Your task to perform on an android device: View the shopping cart on amazon. Add "razer blade" to the cart on amazon, then select checkout. Image 0: 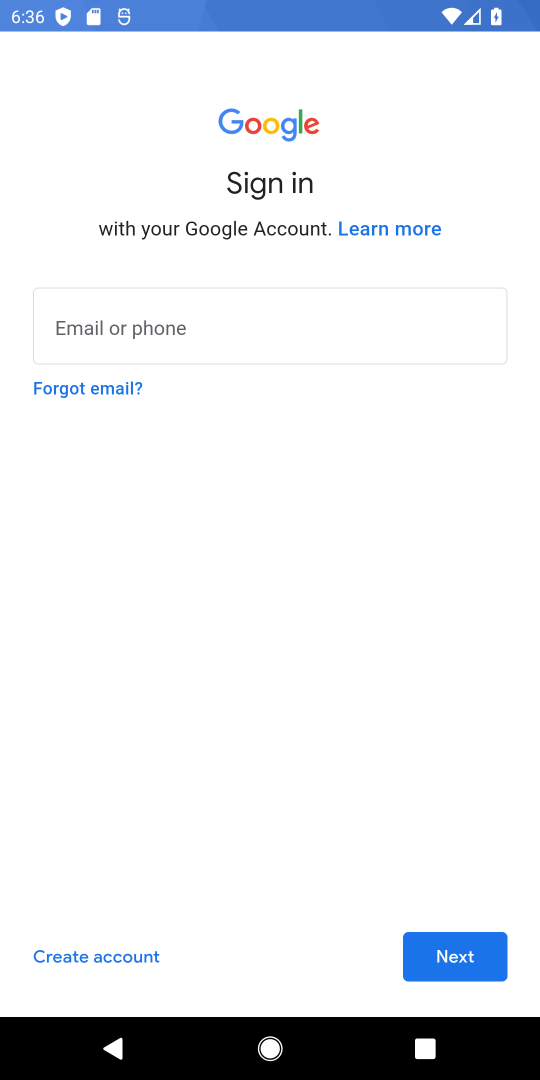
Step 0: press home button
Your task to perform on an android device: View the shopping cart on amazon. Add "razer blade" to the cart on amazon, then select checkout. Image 1: 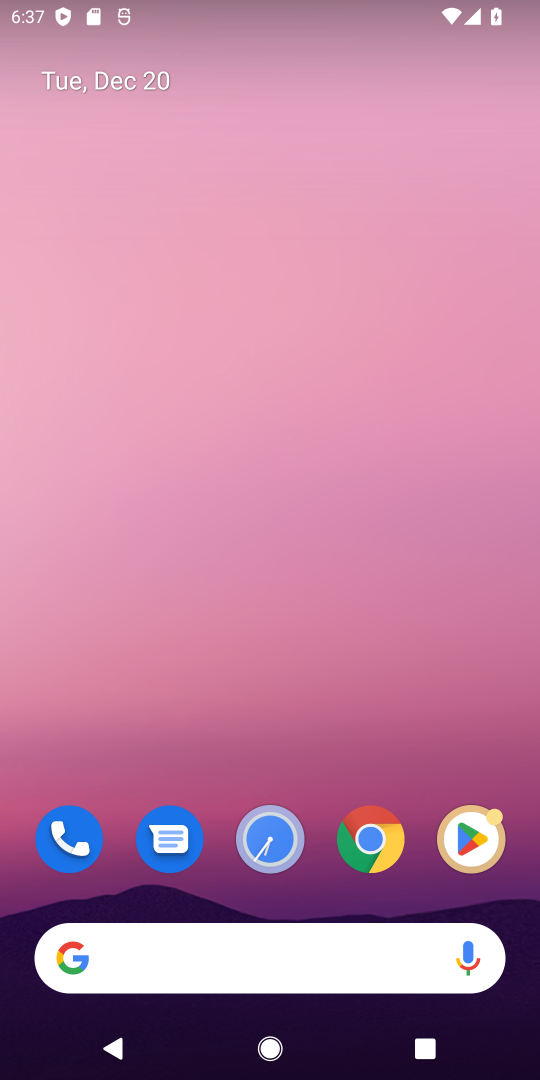
Step 1: click (294, 947)
Your task to perform on an android device: View the shopping cart on amazon. Add "razer blade" to the cart on amazon, then select checkout. Image 2: 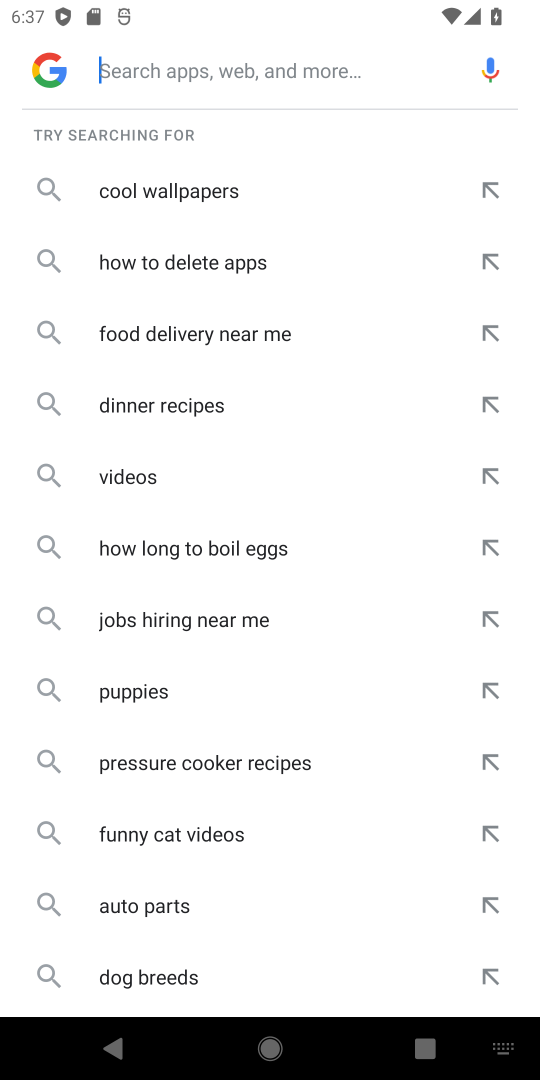
Step 2: type "amazon"
Your task to perform on an android device: View the shopping cart on amazon. Add "razer blade" to the cart on amazon, then select checkout. Image 3: 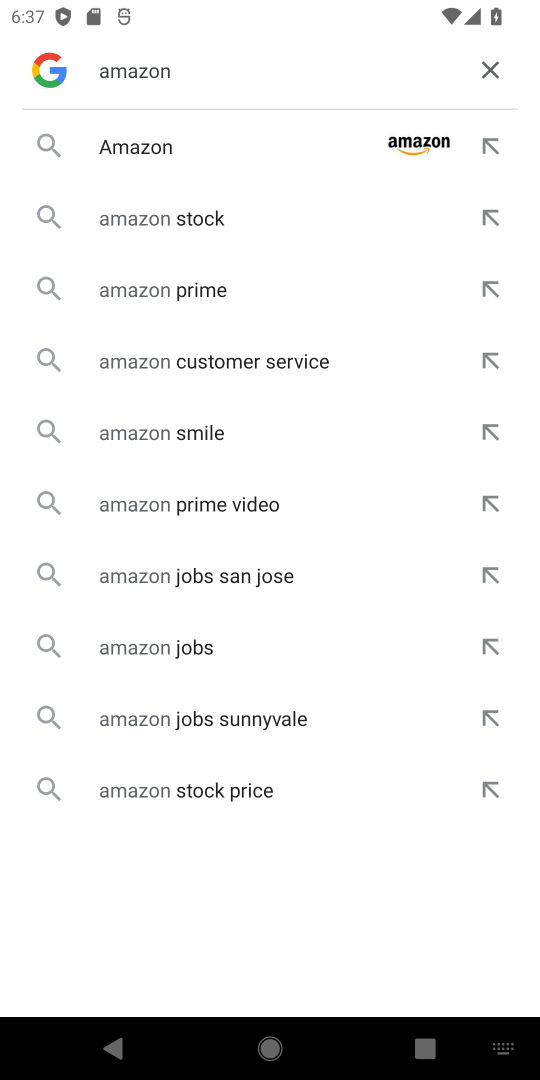
Step 3: click (270, 157)
Your task to perform on an android device: View the shopping cart on amazon. Add "razer blade" to the cart on amazon, then select checkout. Image 4: 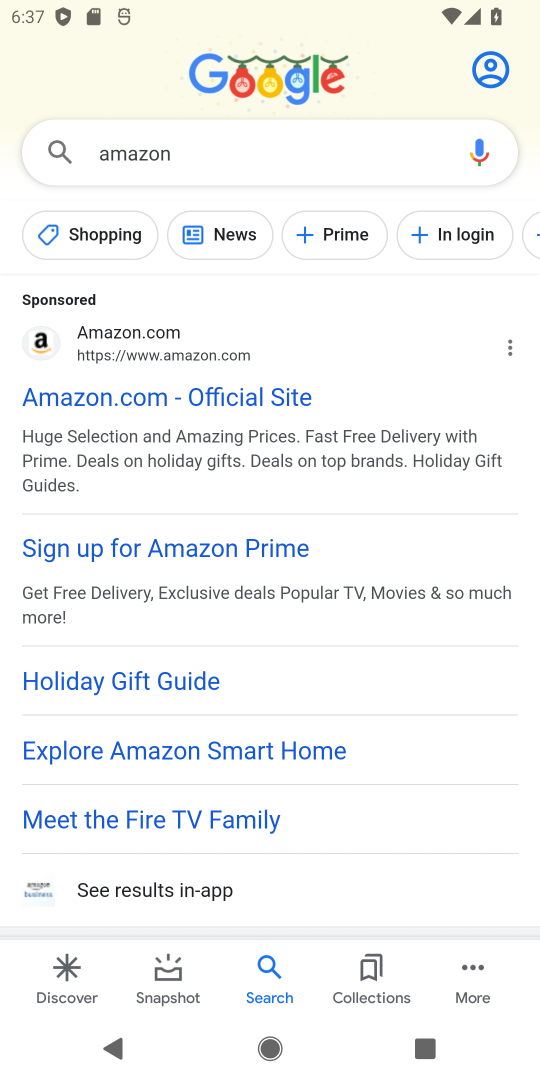
Step 4: click (157, 402)
Your task to perform on an android device: View the shopping cart on amazon. Add "razer blade" to the cart on amazon, then select checkout. Image 5: 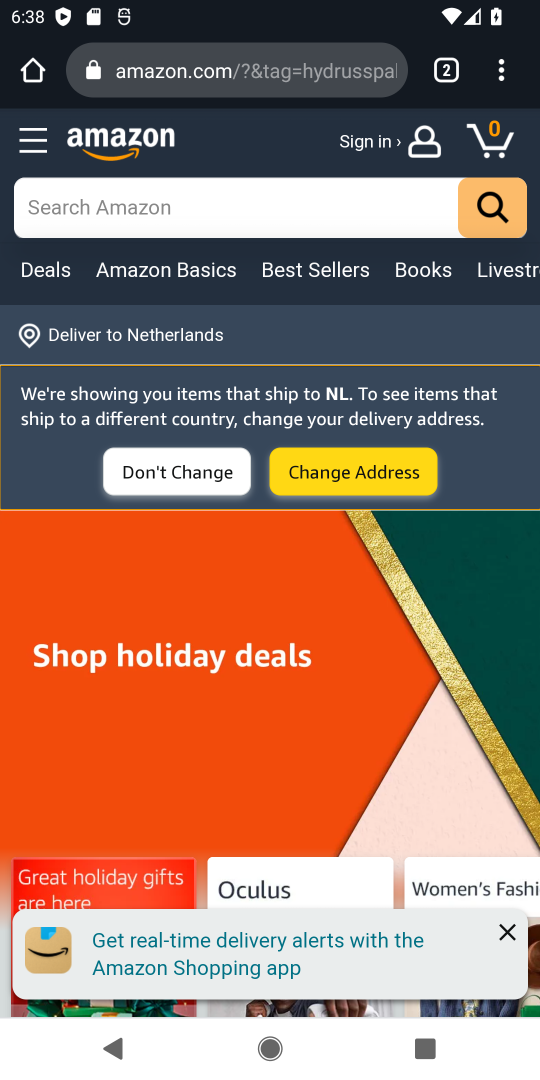
Step 5: click (500, 138)
Your task to perform on an android device: View the shopping cart on amazon. Add "razer blade" to the cart on amazon, then select checkout. Image 6: 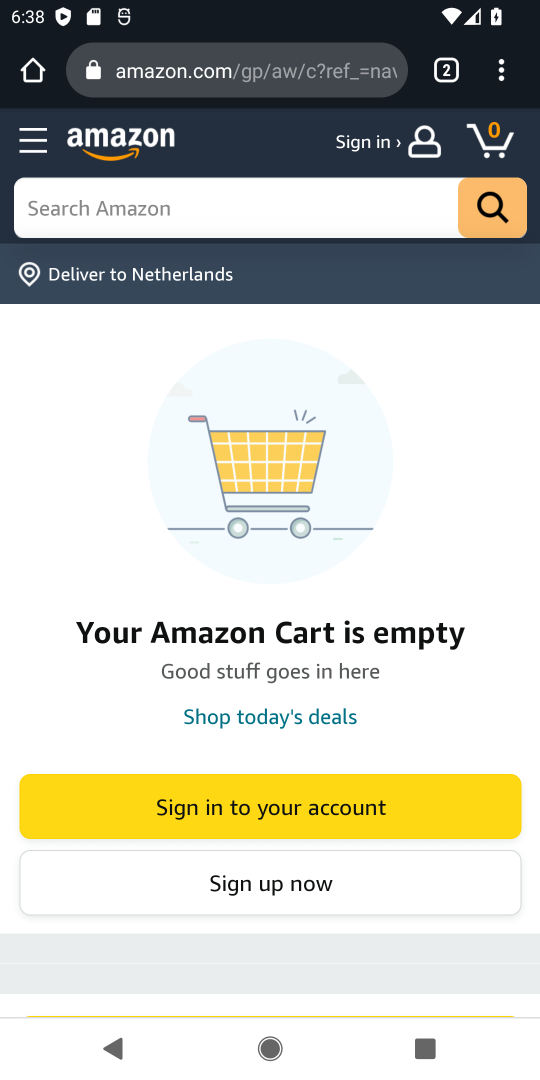
Step 6: click (281, 218)
Your task to perform on an android device: View the shopping cart on amazon. Add "razer blade" to the cart on amazon, then select checkout. Image 7: 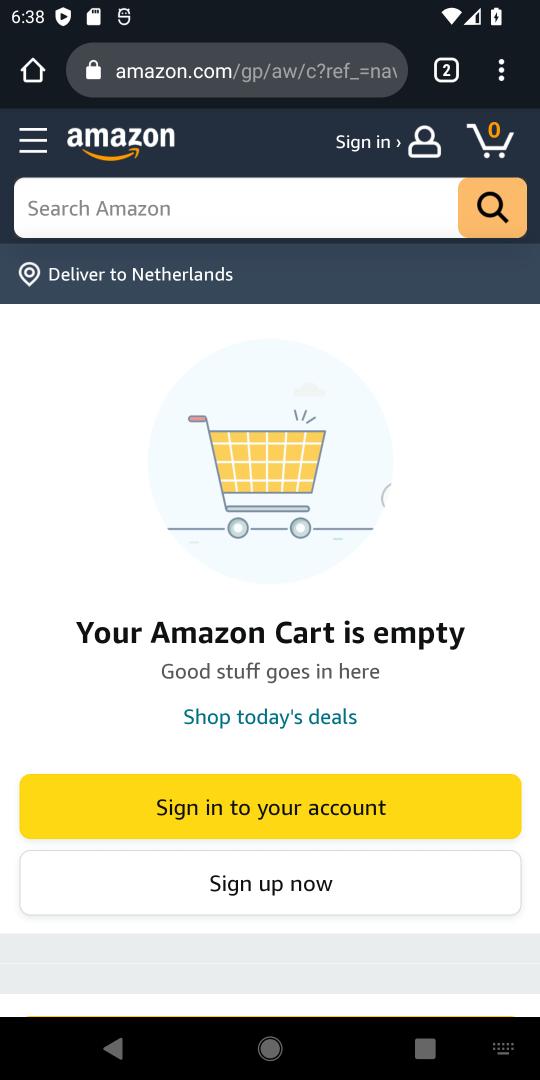
Step 7: click (192, 205)
Your task to perform on an android device: View the shopping cart on amazon. Add "razer blade" to the cart on amazon, then select checkout. Image 8: 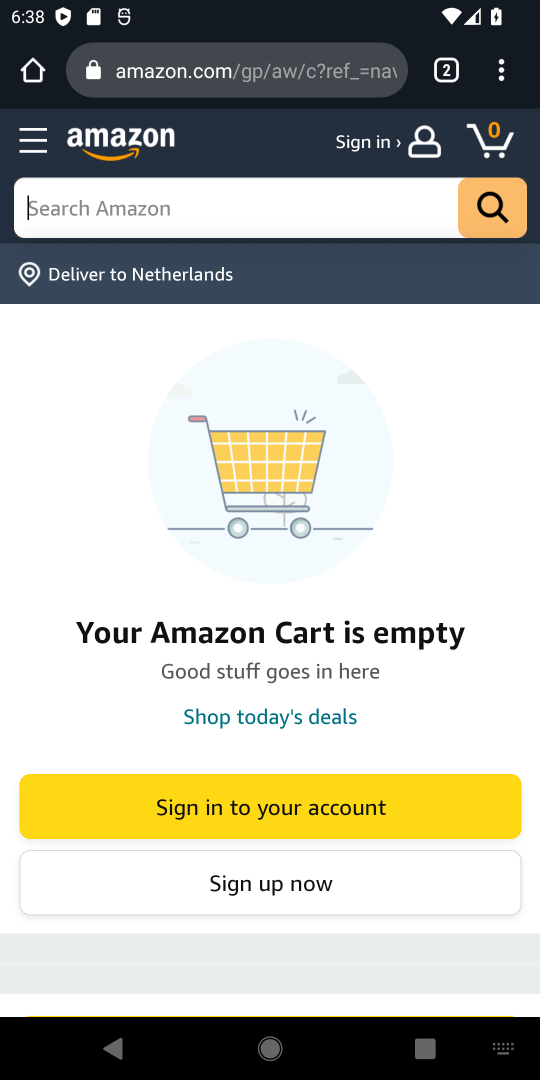
Step 8: type "razer blade"
Your task to perform on an android device: View the shopping cart on amazon. Add "razer blade" to the cart on amazon, then select checkout. Image 9: 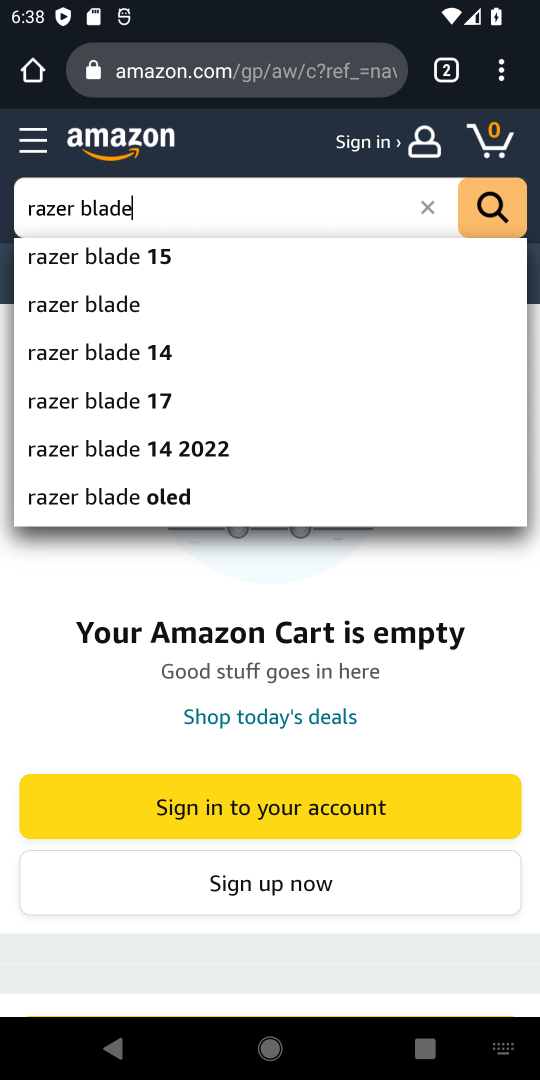
Step 9: click (93, 312)
Your task to perform on an android device: View the shopping cart on amazon. Add "razer blade" to the cart on amazon, then select checkout. Image 10: 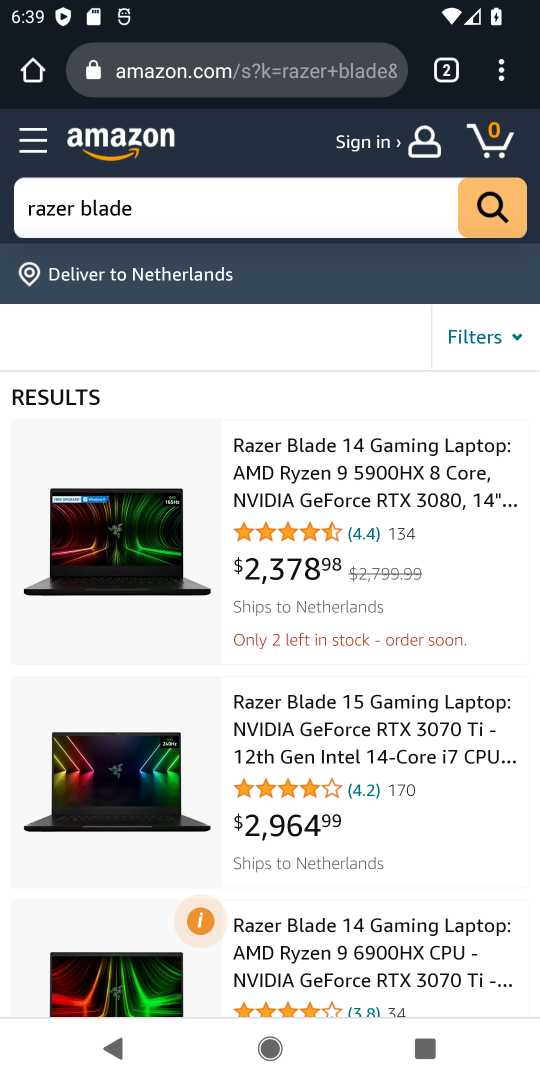
Step 10: click (321, 518)
Your task to perform on an android device: View the shopping cart on amazon. Add "razer blade" to the cart on amazon, then select checkout. Image 11: 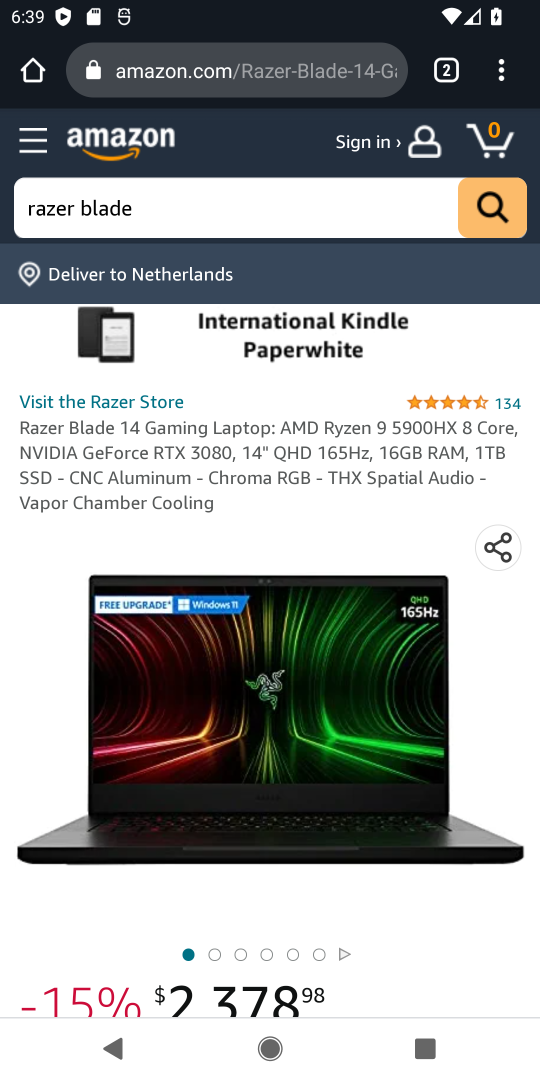
Step 11: drag from (372, 913) to (277, 481)
Your task to perform on an android device: View the shopping cart on amazon. Add "razer blade" to the cart on amazon, then select checkout. Image 12: 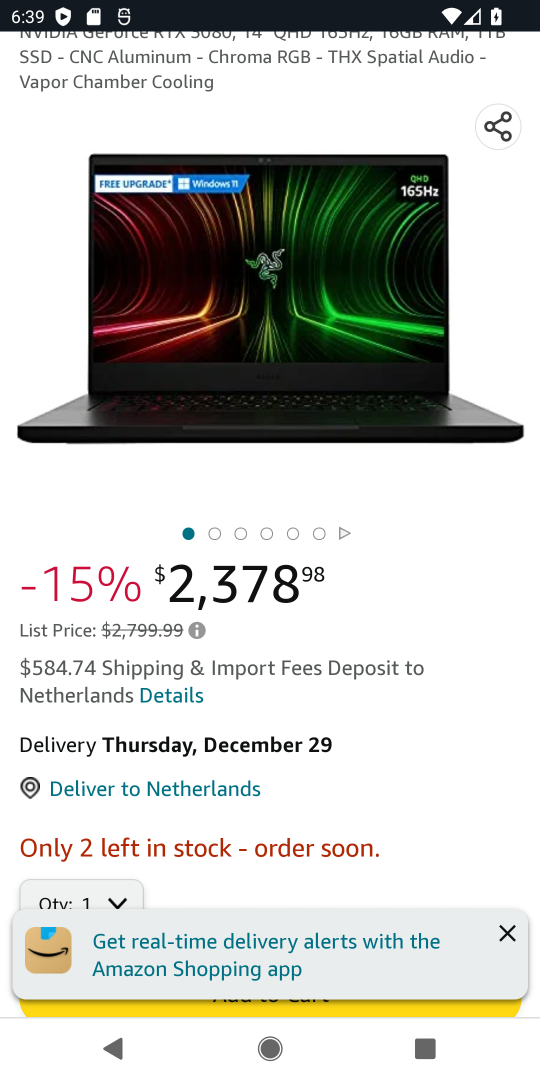
Step 12: click (513, 933)
Your task to perform on an android device: View the shopping cart on amazon. Add "razer blade" to the cart on amazon, then select checkout. Image 13: 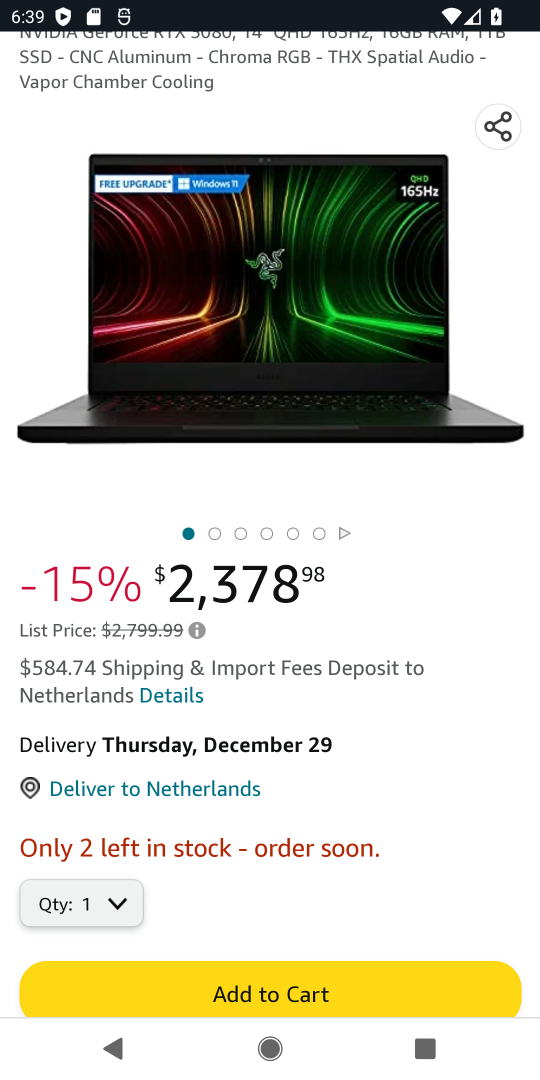
Step 13: click (254, 983)
Your task to perform on an android device: View the shopping cart on amazon. Add "razer blade" to the cart on amazon, then select checkout. Image 14: 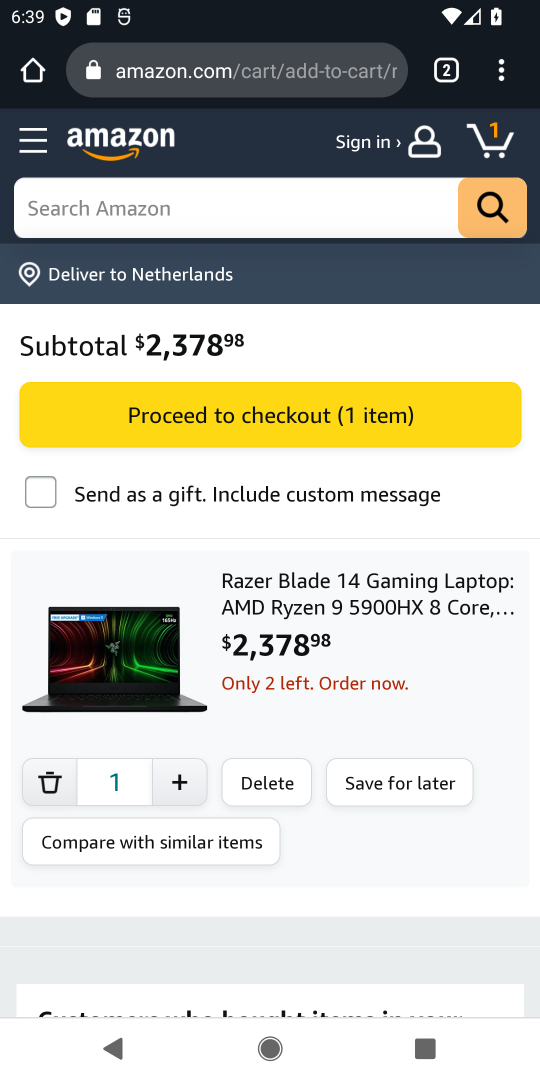
Step 14: click (244, 420)
Your task to perform on an android device: View the shopping cart on amazon. Add "razer blade" to the cart on amazon, then select checkout. Image 15: 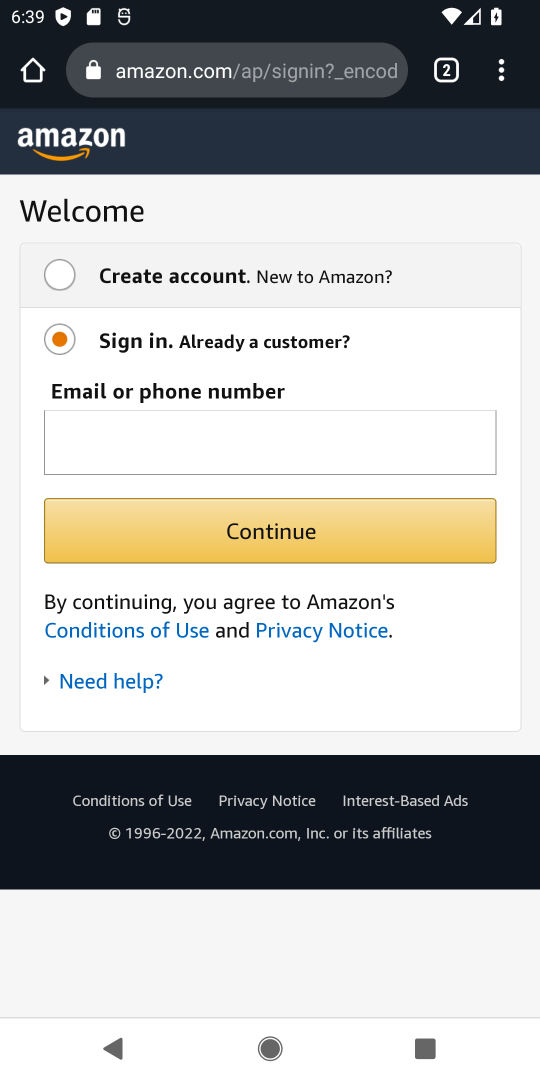
Step 15: task complete